Your task to perform on an android device: add a label to a message in the gmail app Image 0: 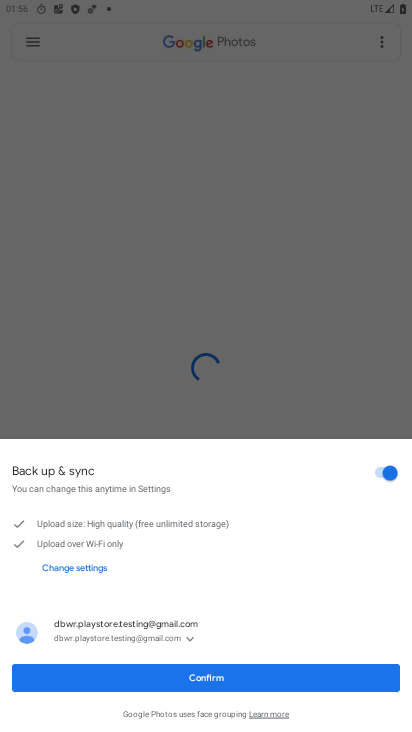
Step 0: press home button
Your task to perform on an android device: add a label to a message in the gmail app Image 1: 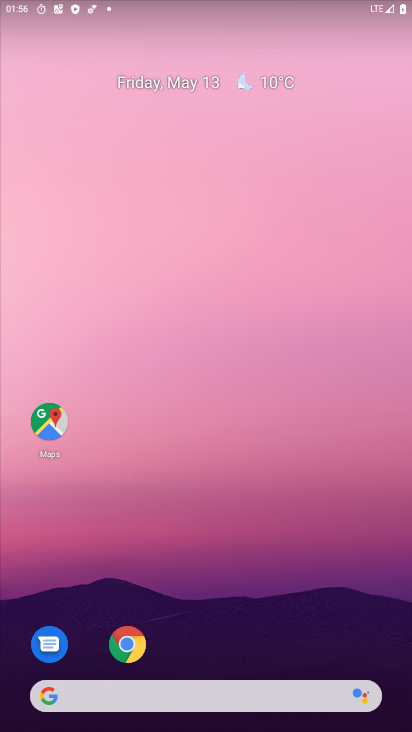
Step 1: drag from (251, 709) to (257, 71)
Your task to perform on an android device: add a label to a message in the gmail app Image 2: 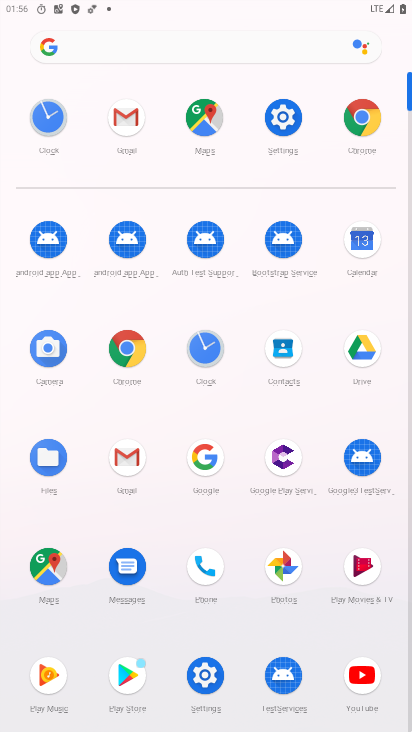
Step 2: click (126, 456)
Your task to perform on an android device: add a label to a message in the gmail app Image 3: 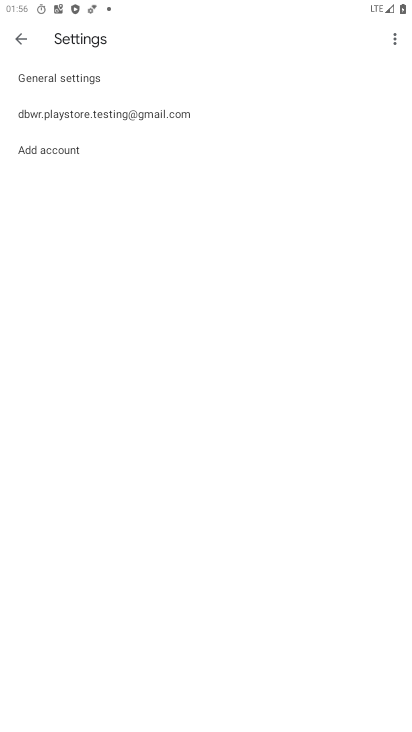
Step 3: press back button
Your task to perform on an android device: add a label to a message in the gmail app Image 4: 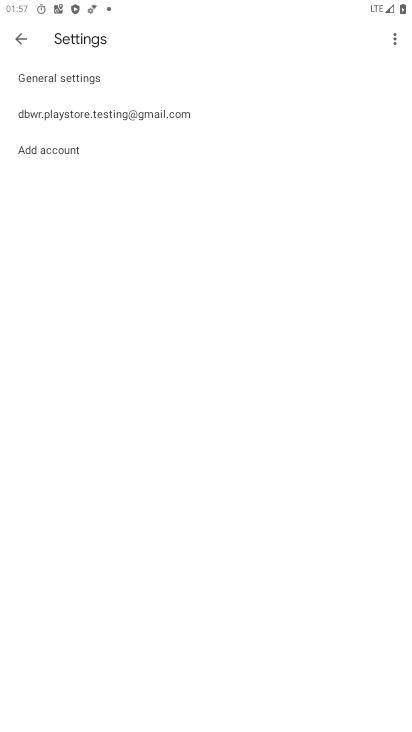
Step 4: press back button
Your task to perform on an android device: add a label to a message in the gmail app Image 5: 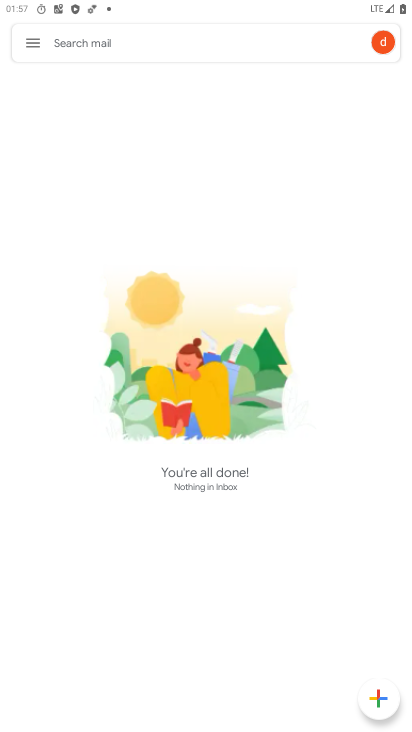
Step 5: click (30, 40)
Your task to perform on an android device: add a label to a message in the gmail app Image 6: 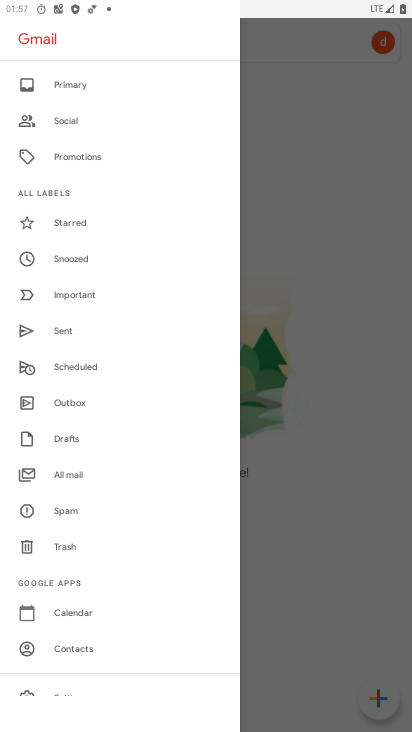
Step 6: click (70, 326)
Your task to perform on an android device: add a label to a message in the gmail app Image 7: 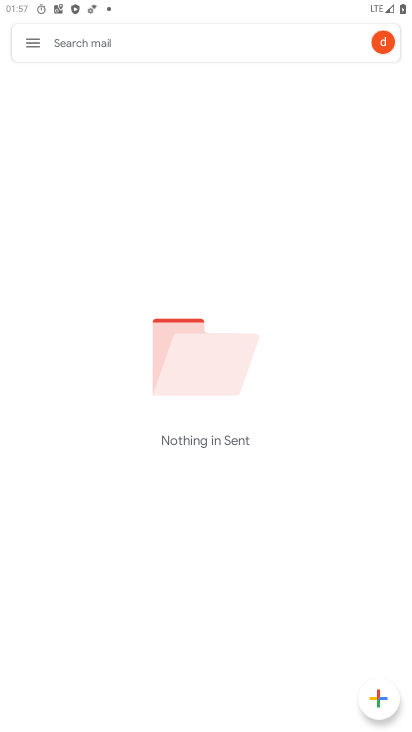
Step 7: task complete